Your task to perform on an android device: see creations saved in the google photos Image 0: 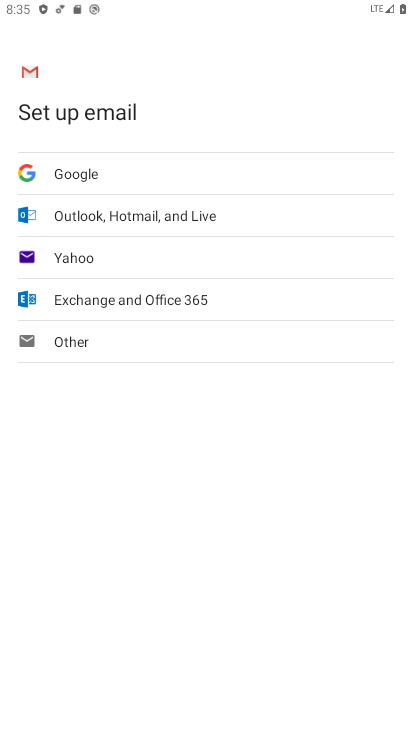
Step 0: press home button
Your task to perform on an android device: see creations saved in the google photos Image 1: 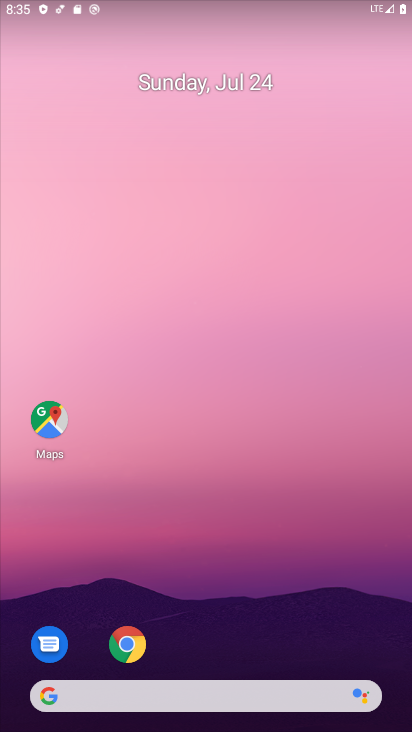
Step 1: drag from (29, 575) to (252, 100)
Your task to perform on an android device: see creations saved in the google photos Image 2: 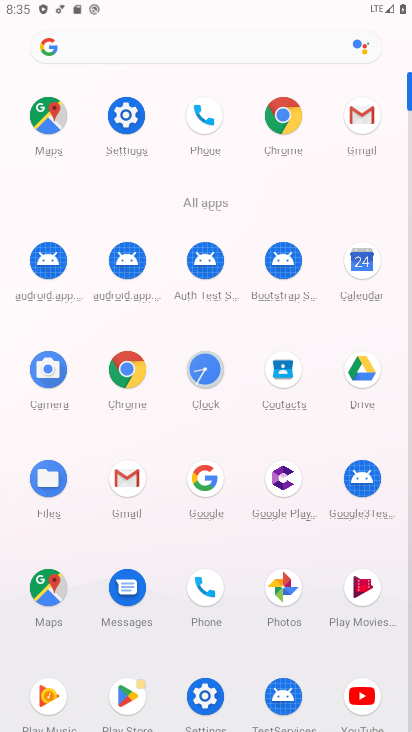
Step 2: click (282, 590)
Your task to perform on an android device: see creations saved in the google photos Image 3: 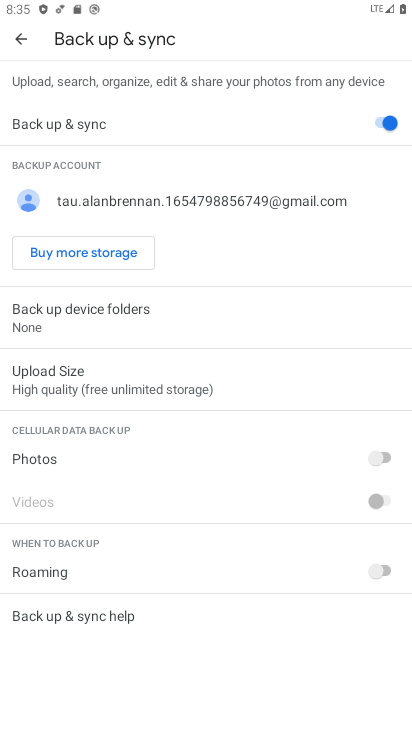
Step 3: press back button
Your task to perform on an android device: see creations saved in the google photos Image 4: 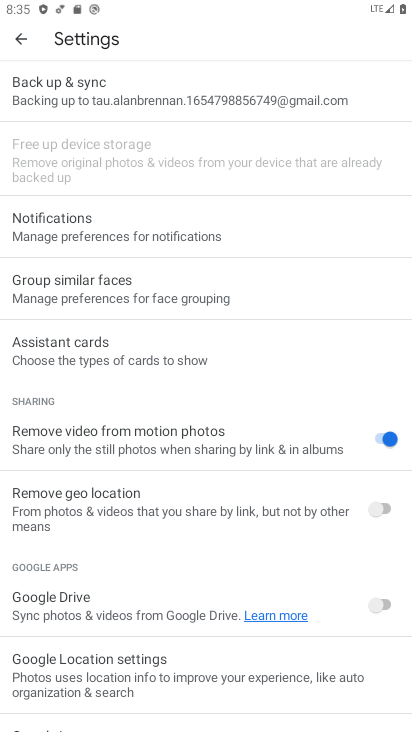
Step 4: click (30, 44)
Your task to perform on an android device: see creations saved in the google photos Image 5: 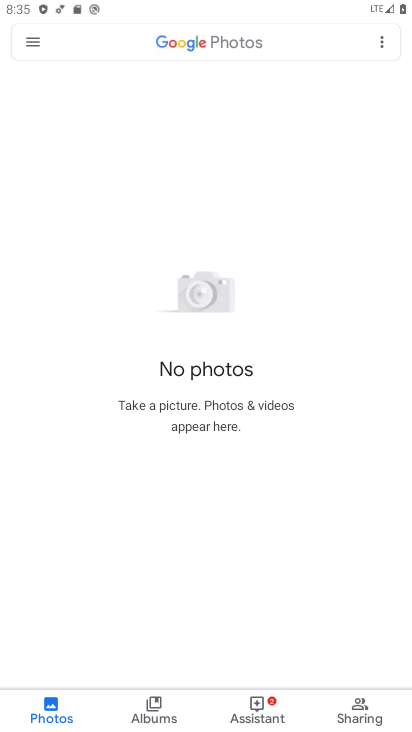
Step 5: click (125, 42)
Your task to perform on an android device: see creations saved in the google photos Image 6: 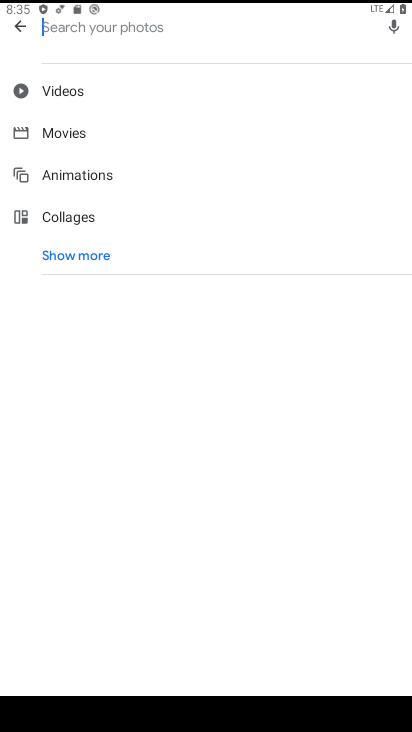
Step 6: click (54, 249)
Your task to perform on an android device: see creations saved in the google photos Image 7: 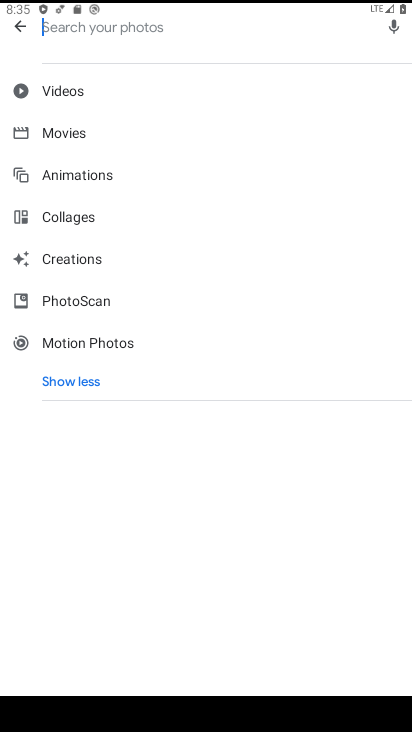
Step 7: click (79, 259)
Your task to perform on an android device: see creations saved in the google photos Image 8: 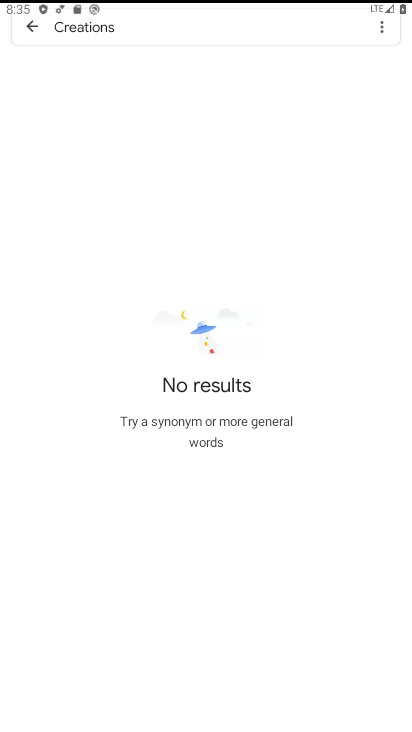
Step 8: task complete